Your task to perform on an android device: turn off wifi Image 0: 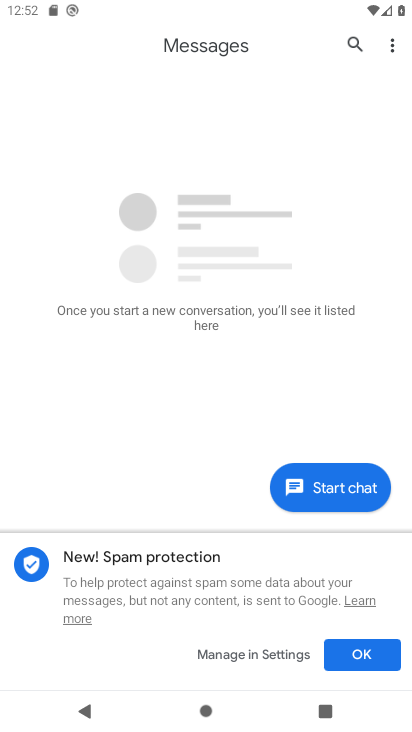
Step 0: press home button
Your task to perform on an android device: turn off wifi Image 1: 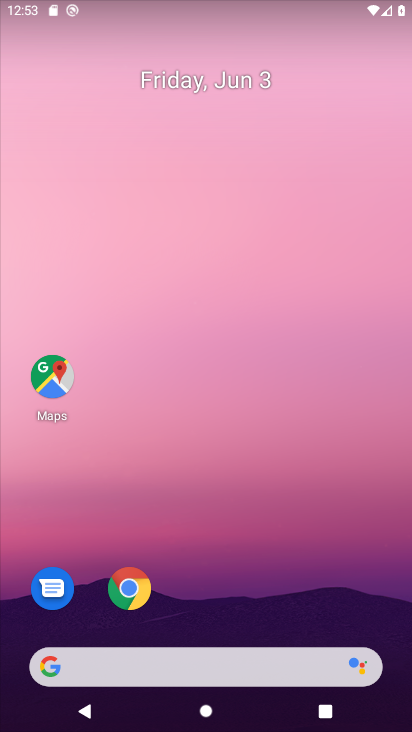
Step 1: drag from (232, 622) to (248, 50)
Your task to perform on an android device: turn off wifi Image 2: 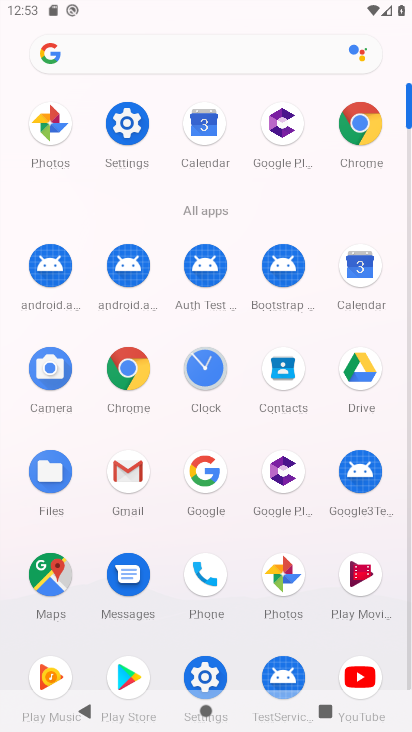
Step 2: click (138, 126)
Your task to perform on an android device: turn off wifi Image 3: 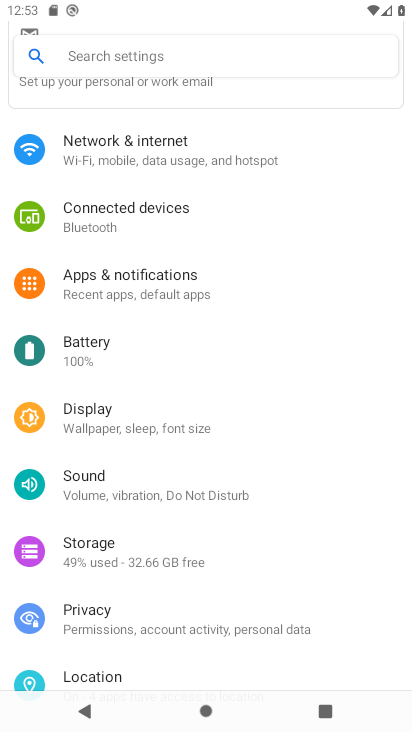
Step 3: click (237, 165)
Your task to perform on an android device: turn off wifi Image 4: 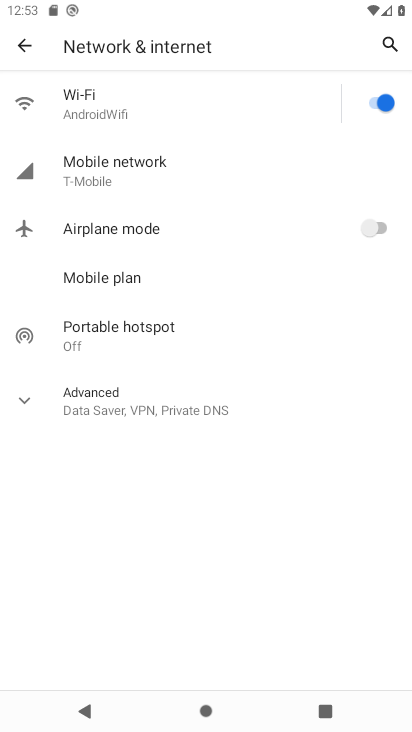
Step 4: click (388, 100)
Your task to perform on an android device: turn off wifi Image 5: 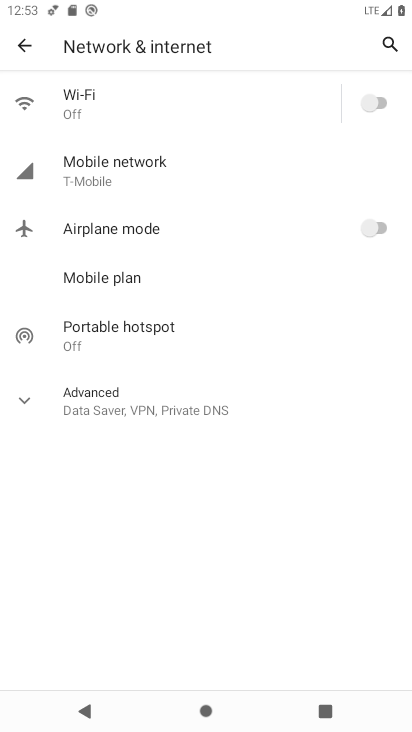
Step 5: task complete